Your task to perform on an android device: Open calendar and show me the fourth week of next month Image 0: 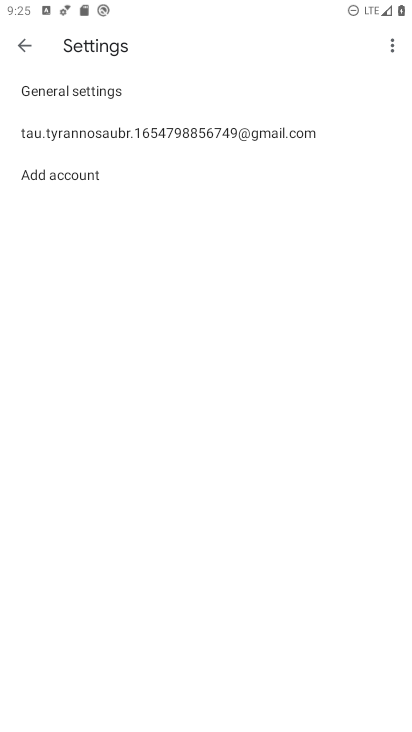
Step 0: press home button
Your task to perform on an android device: Open calendar and show me the fourth week of next month Image 1: 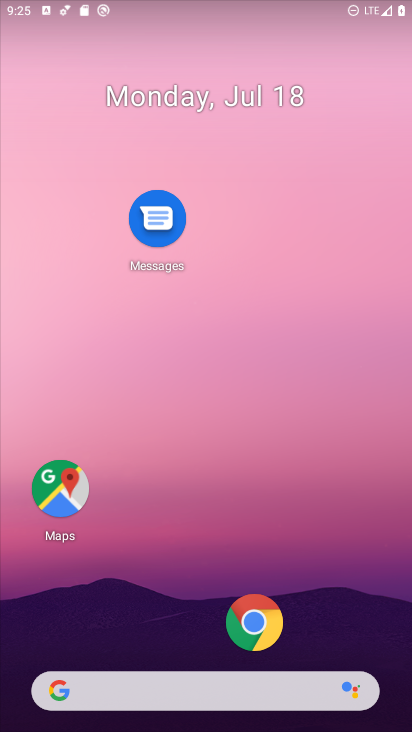
Step 1: drag from (208, 630) to (238, 191)
Your task to perform on an android device: Open calendar and show me the fourth week of next month Image 2: 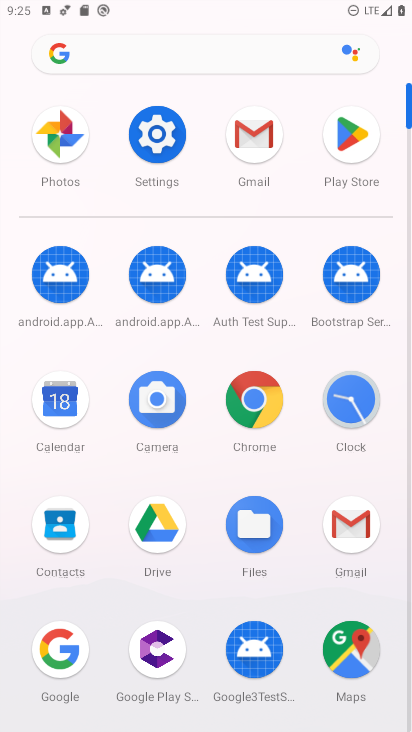
Step 2: click (67, 413)
Your task to perform on an android device: Open calendar and show me the fourth week of next month Image 3: 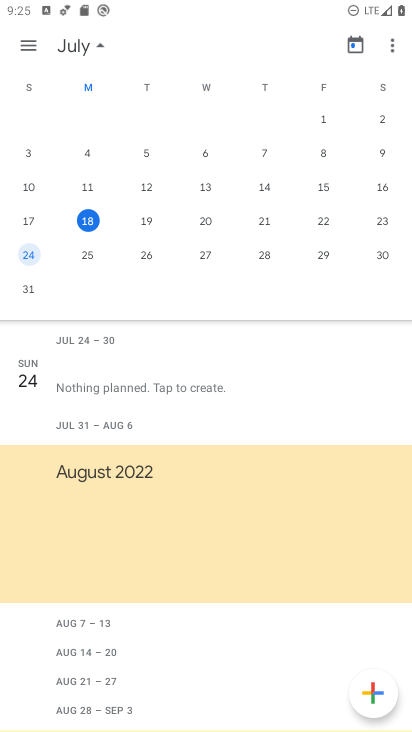
Step 3: drag from (306, 229) to (12, 205)
Your task to perform on an android device: Open calendar and show me the fourth week of next month Image 4: 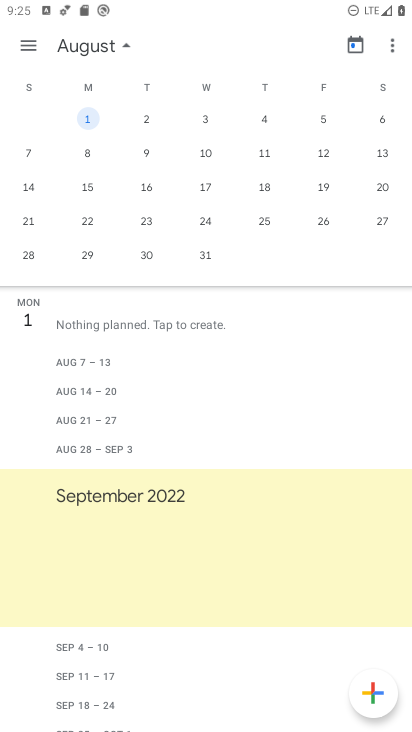
Step 4: click (33, 227)
Your task to perform on an android device: Open calendar and show me the fourth week of next month Image 5: 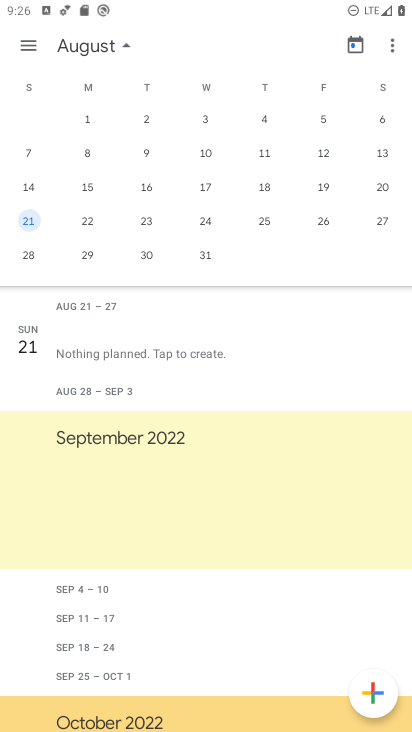
Step 5: click (32, 225)
Your task to perform on an android device: Open calendar and show me the fourth week of next month Image 6: 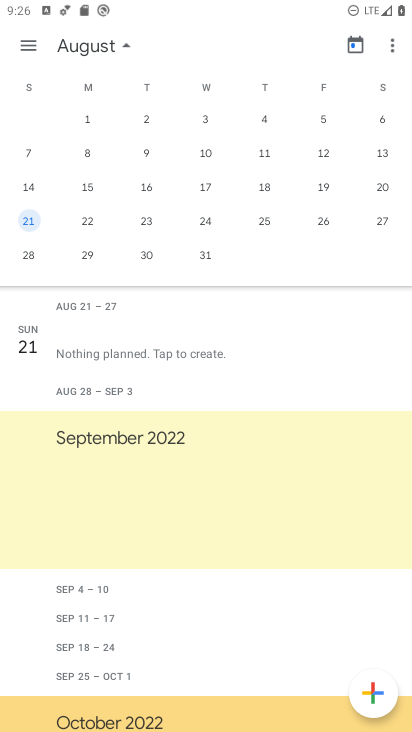
Step 6: task complete